Your task to perform on an android device: Go to notification settings Image 0: 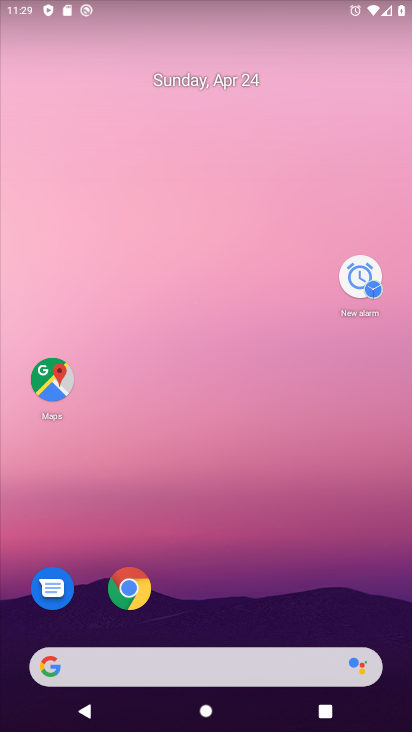
Step 0: drag from (220, 646) to (302, 73)
Your task to perform on an android device: Go to notification settings Image 1: 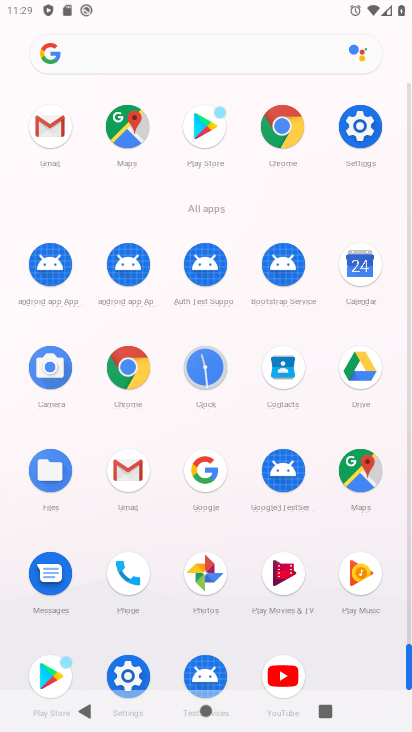
Step 1: drag from (198, 585) to (249, 326)
Your task to perform on an android device: Go to notification settings Image 2: 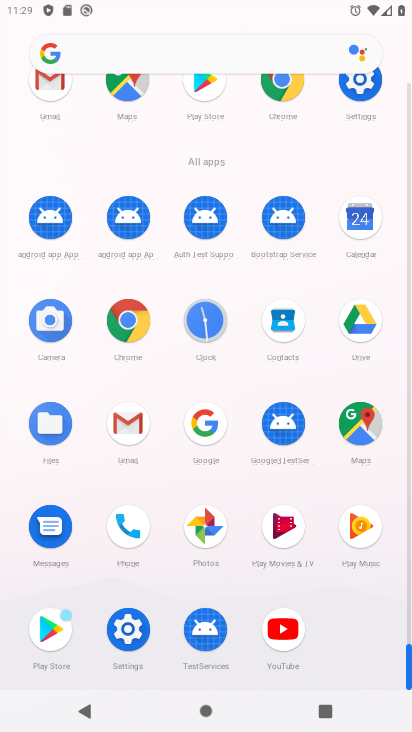
Step 2: click (130, 628)
Your task to perform on an android device: Go to notification settings Image 3: 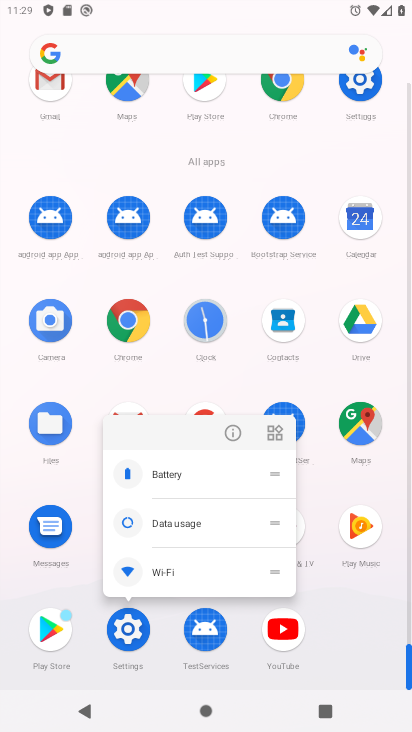
Step 3: click (138, 636)
Your task to perform on an android device: Go to notification settings Image 4: 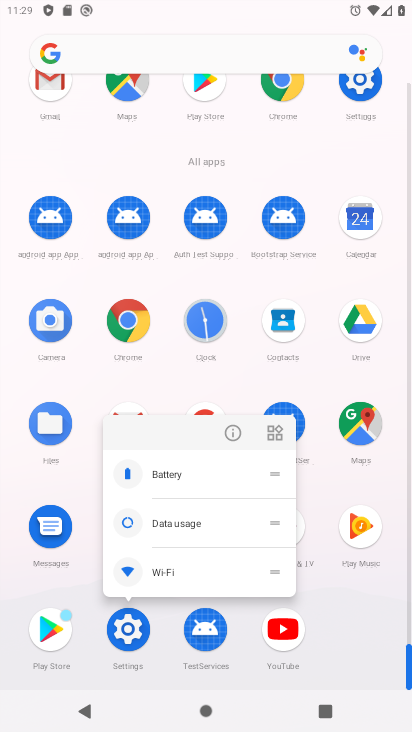
Step 4: click (128, 631)
Your task to perform on an android device: Go to notification settings Image 5: 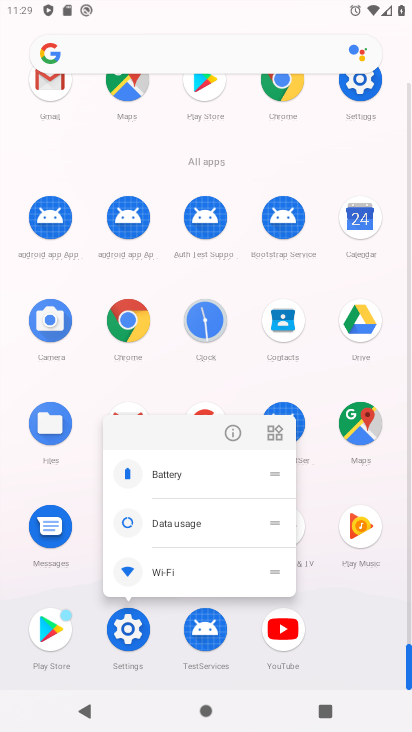
Step 5: click (133, 626)
Your task to perform on an android device: Go to notification settings Image 6: 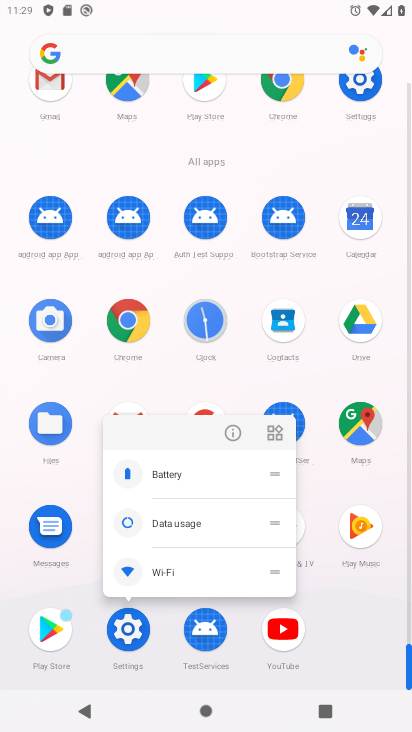
Step 6: click (133, 621)
Your task to perform on an android device: Go to notification settings Image 7: 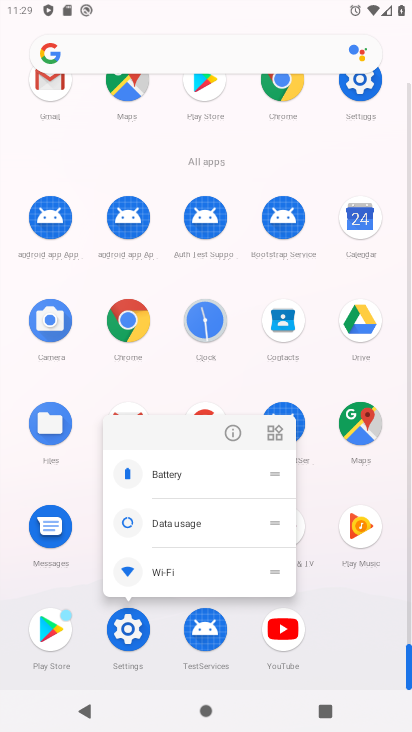
Step 7: click (124, 627)
Your task to perform on an android device: Go to notification settings Image 8: 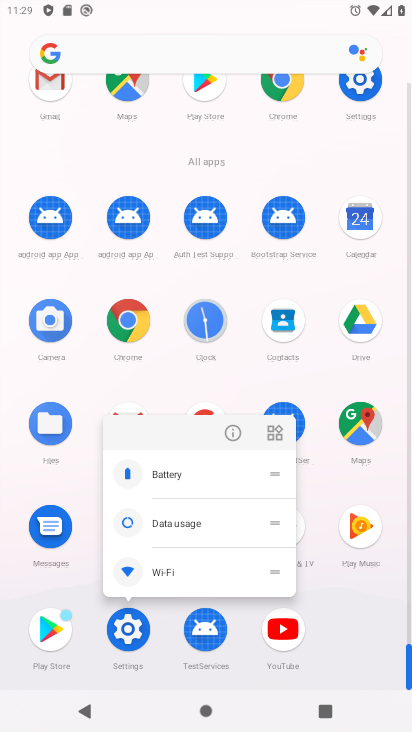
Step 8: click (128, 636)
Your task to perform on an android device: Go to notification settings Image 9: 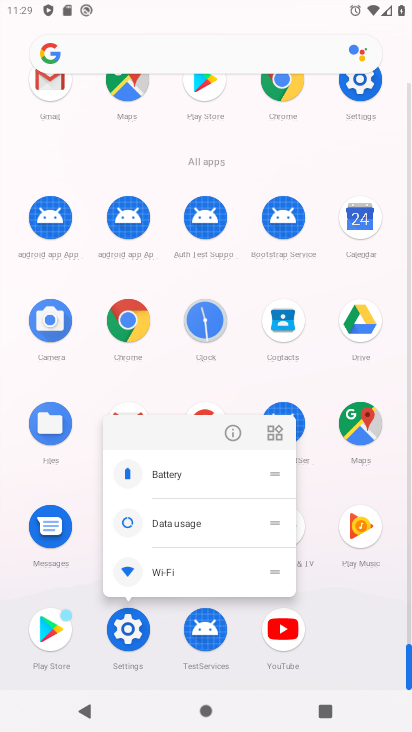
Step 9: click (367, 94)
Your task to perform on an android device: Go to notification settings Image 10: 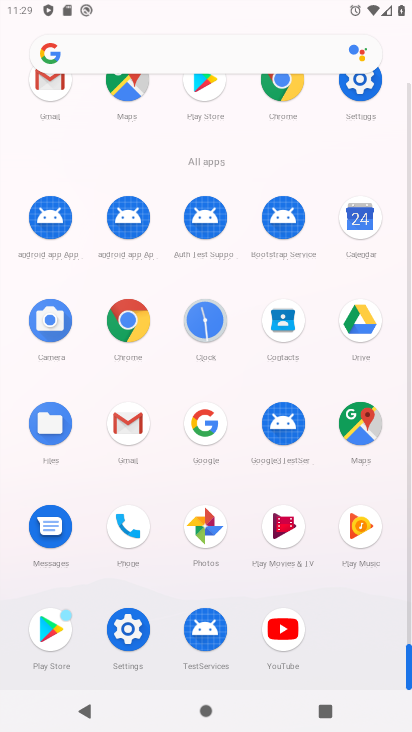
Step 10: click (376, 93)
Your task to perform on an android device: Go to notification settings Image 11: 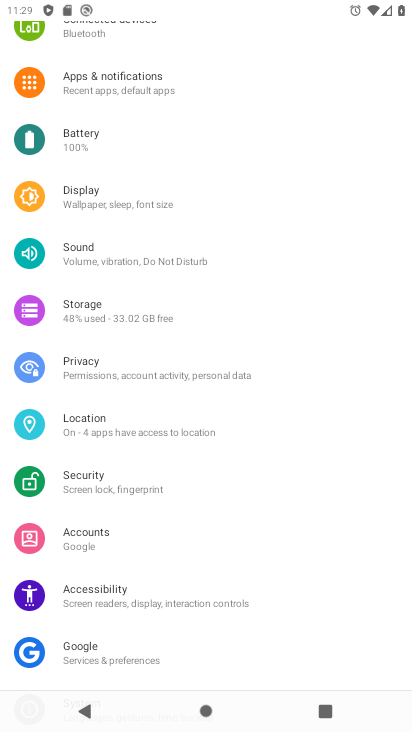
Step 11: click (162, 77)
Your task to perform on an android device: Go to notification settings Image 12: 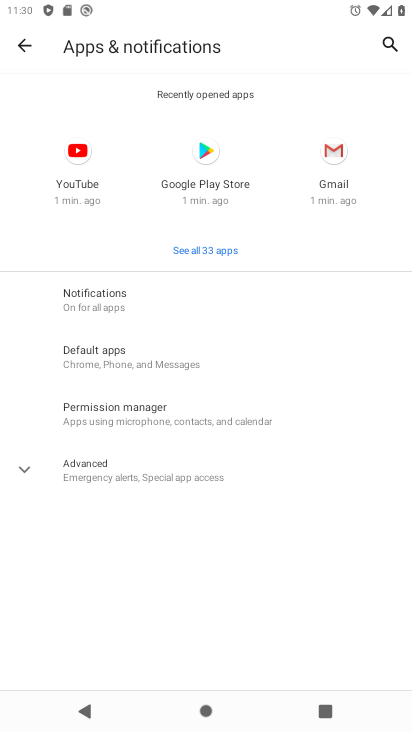
Step 12: task complete